Your task to perform on an android device: Open privacy settings Image 0: 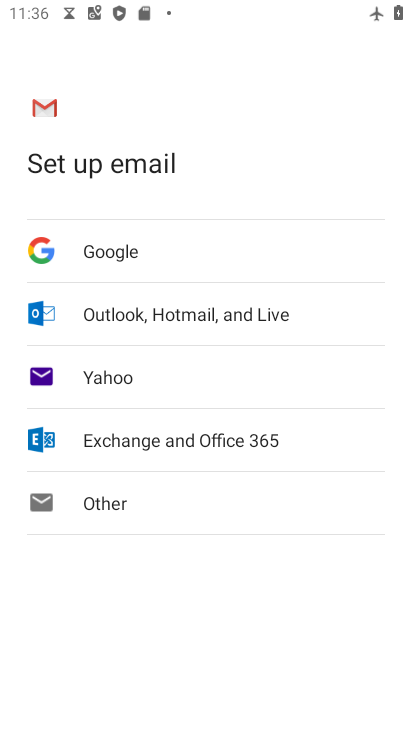
Step 0: press home button
Your task to perform on an android device: Open privacy settings Image 1: 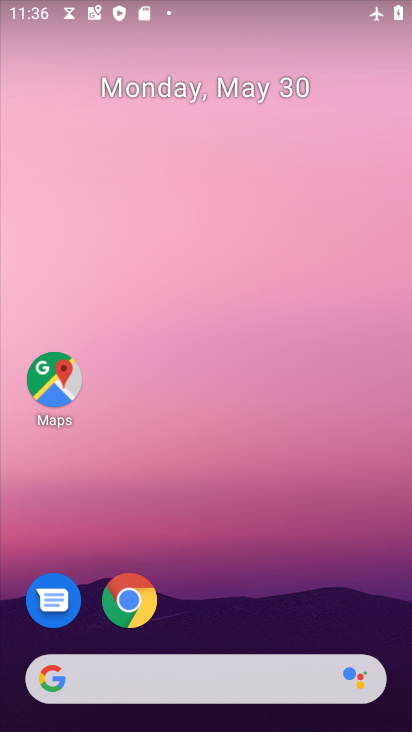
Step 1: drag from (212, 708) to (199, 17)
Your task to perform on an android device: Open privacy settings Image 2: 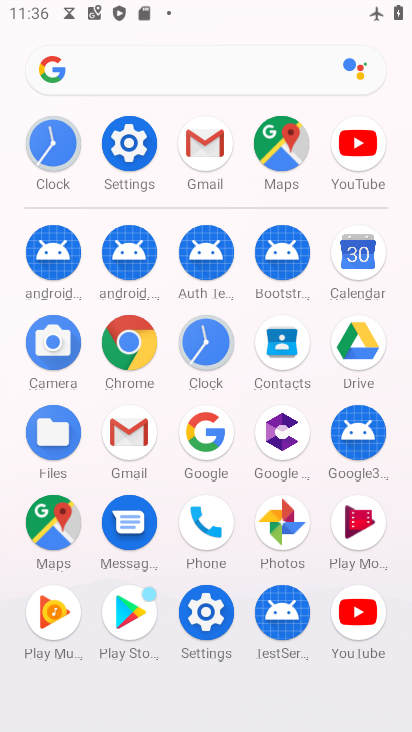
Step 2: click (133, 143)
Your task to perform on an android device: Open privacy settings Image 3: 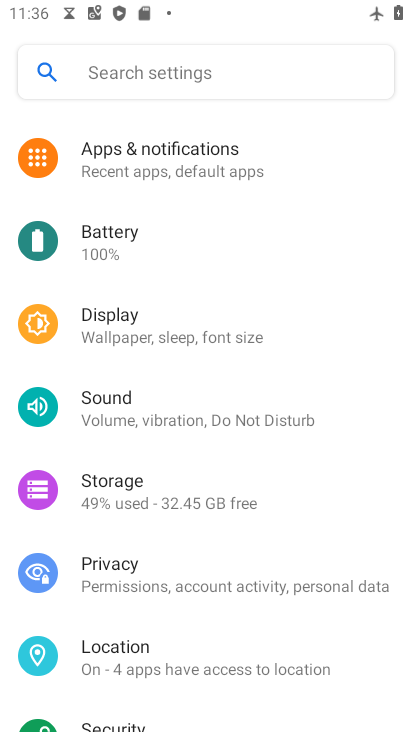
Step 3: click (121, 580)
Your task to perform on an android device: Open privacy settings Image 4: 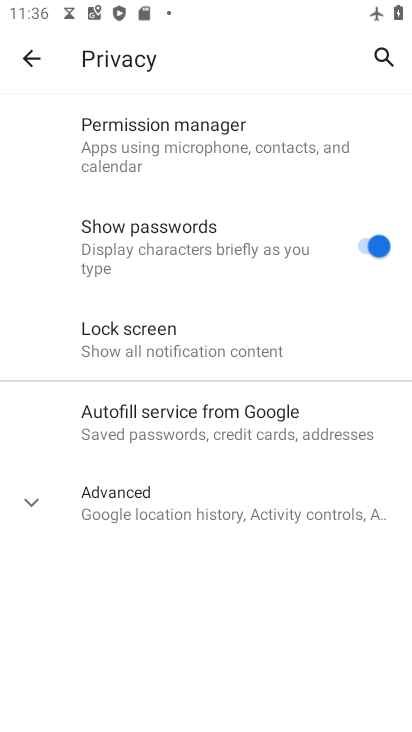
Step 4: task complete